Your task to perform on an android device: find snoozed emails in the gmail app Image 0: 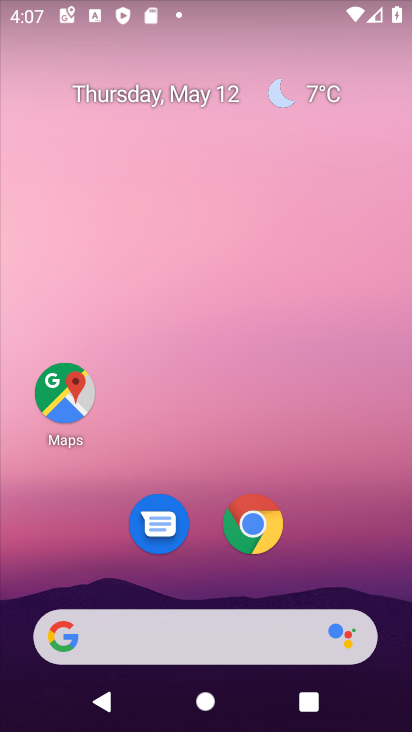
Step 0: drag from (324, 531) to (310, 11)
Your task to perform on an android device: find snoozed emails in the gmail app Image 1: 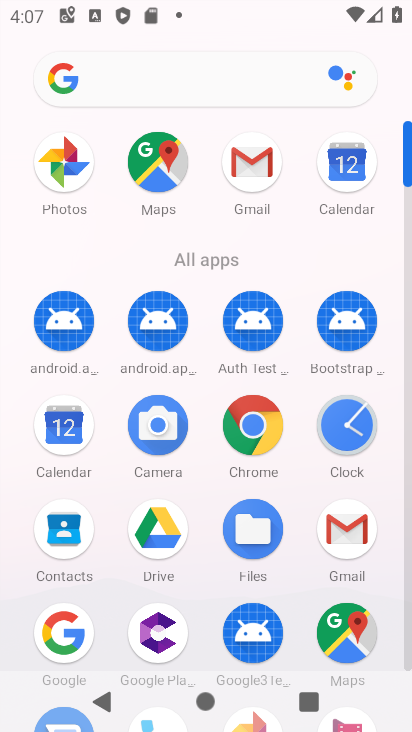
Step 1: click (259, 159)
Your task to perform on an android device: find snoozed emails in the gmail app Image 2: 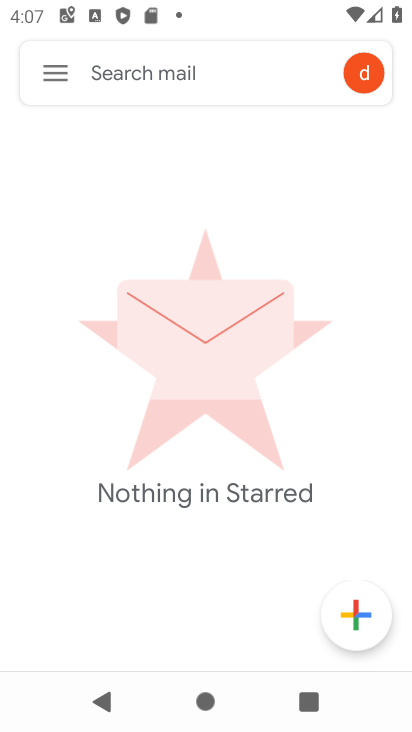
Step 2: click (58, 74)
Your task to perform on an android device: find snoozed emails in the gmail app Image 3: 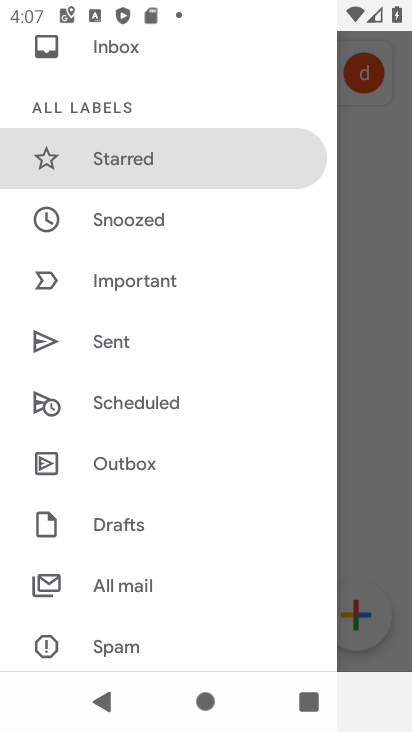
Step 3: click (192, 220)
Your task to perform on an android device: find snoozed emails in the gmail app Image 4: 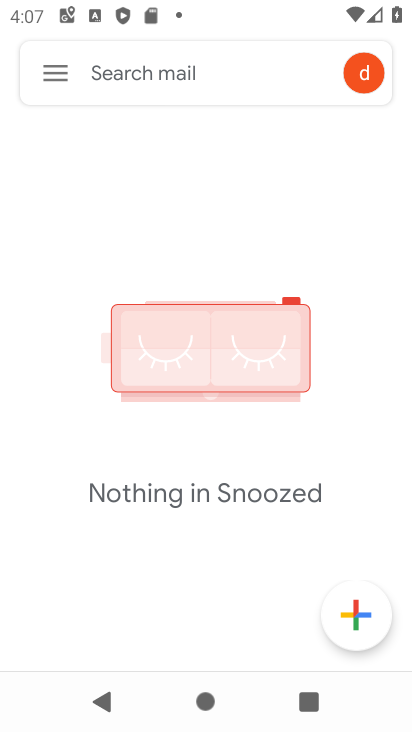
Step 4: task complete